Your task to perform on an android device: change the clock display to digital Image 0: 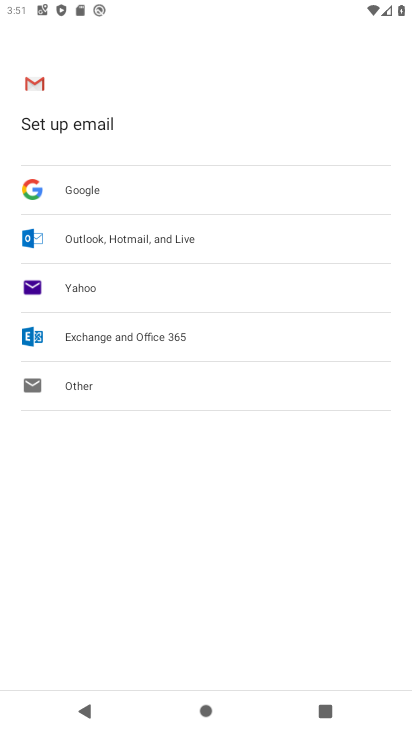
Step 0: press home button
Your task to perform on an android device: change the clock display to digital Image 1: 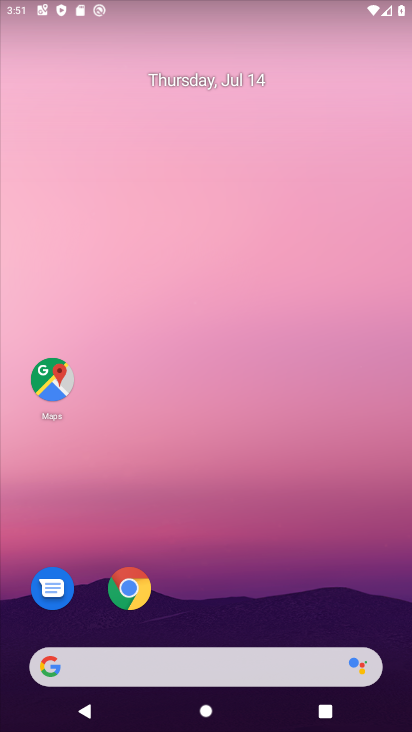
Step 1: drag from (248, 574) to (281, 63)
Your task to perform on an android device: change the clock display to digital Image 2: 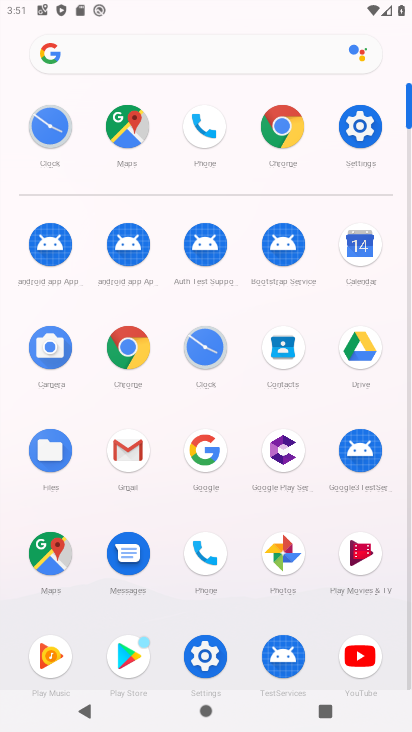
Step 2: click (215, 343)
Your task to perform on an android device: change the clock display to digital Image 3: 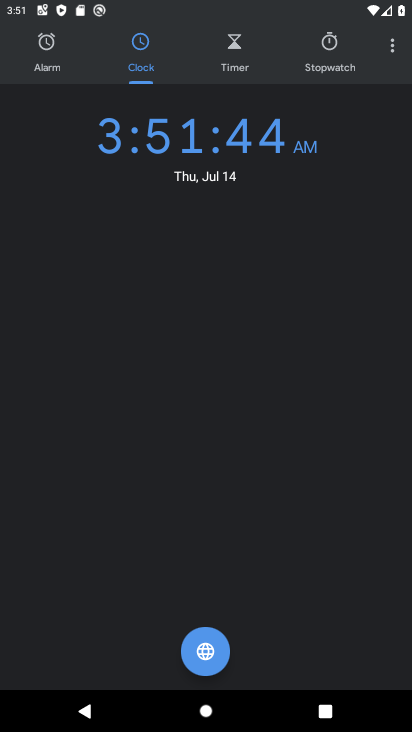
Step 3: click (390, 40)
Your task to perform on an android device: change the clock display to digital Image 4: 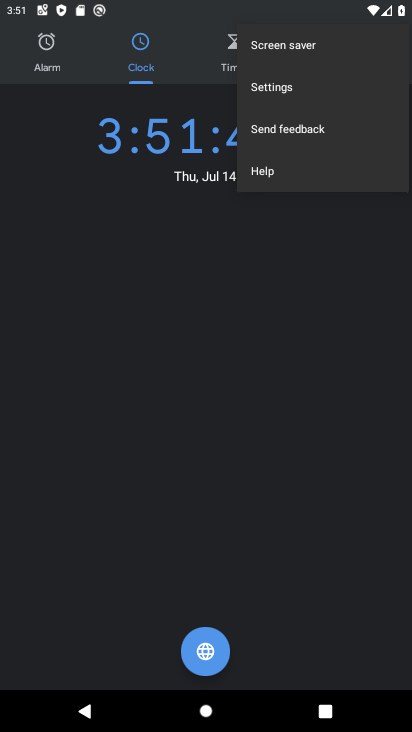
Step 4: click (291, 77)
Your task to perform on an android device: change the clock display to digital Image 5: 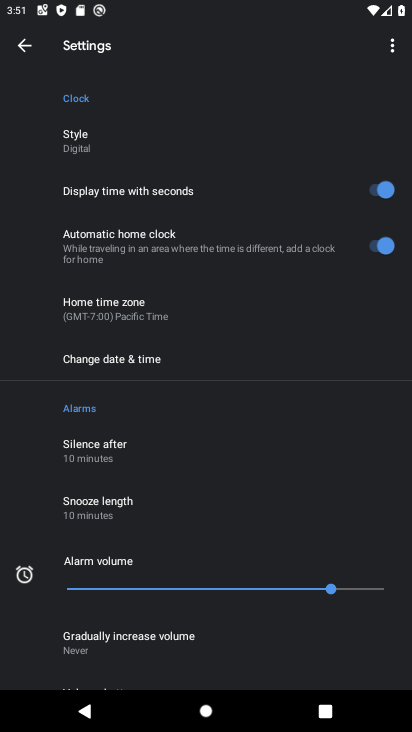
Step 5: click (79, 144)
Your task to perform on an android device: change the clock display to digital Image 6: 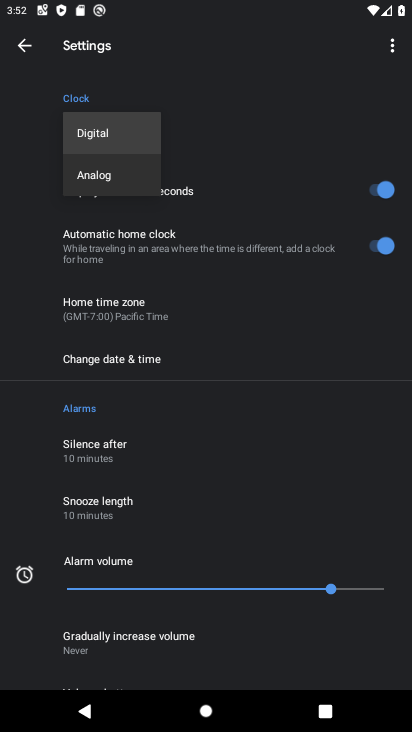
Step 6: task complete